Your task to perform on an android device: Turn on the flashlight Image 0: 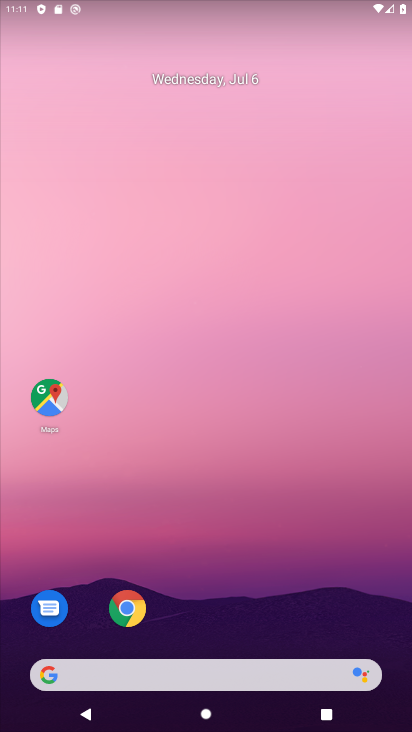
Step 0: drag from (251, 586) to (251, 86)
Your task to perform on an android device: Turn on the flashlight Image 1: 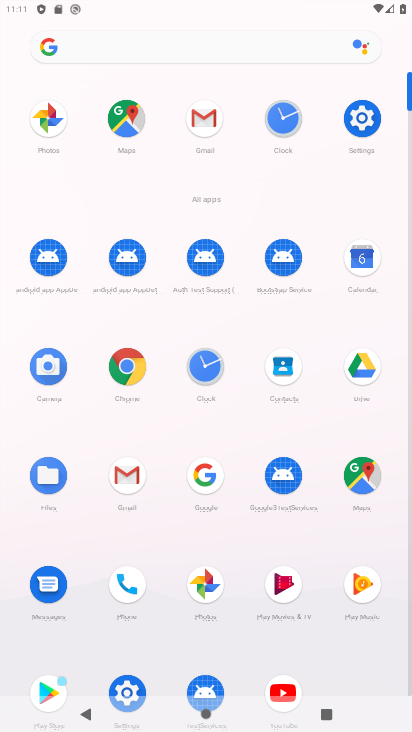
Step 1: task complete